Your task to perform on an android device: Search for Mexican restaurants on Maps Image 0: 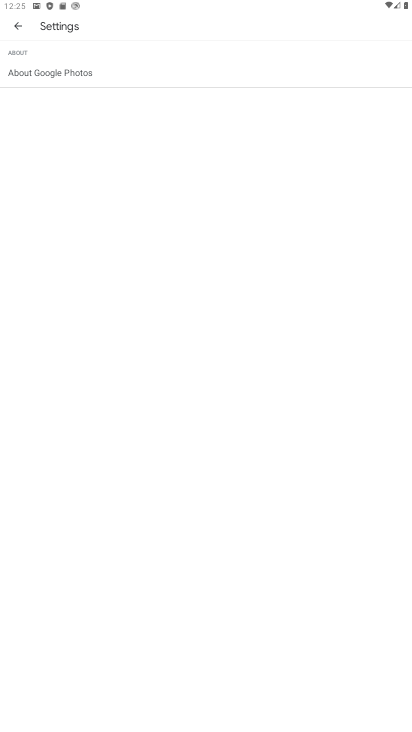
Step 0: press home button
Your task to perform on an android device: Search for Mexican restaurants on Maps Image 1: 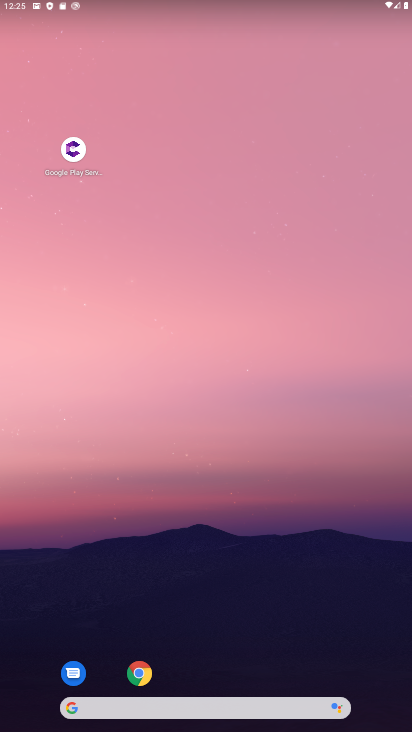
Step 1: drag from (212, 685) to (261, 227)
Your task to perform on an android device: Search for Mexican restaurants on Maps Image 2: 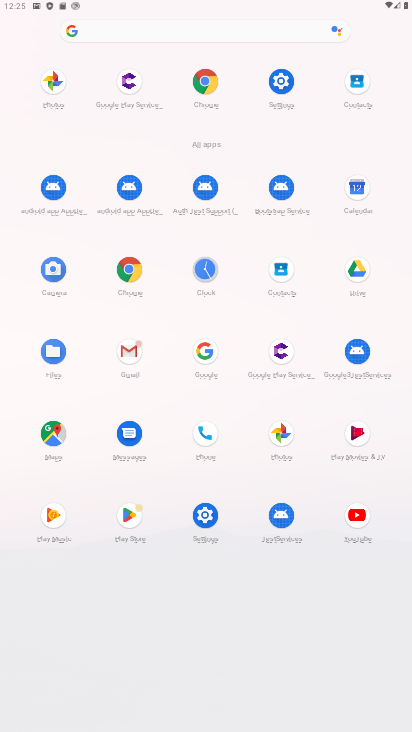
Step 2: click (54, 434)
Your task to perform on an android device: Search for Mexican restaurants on Maps Image 3: 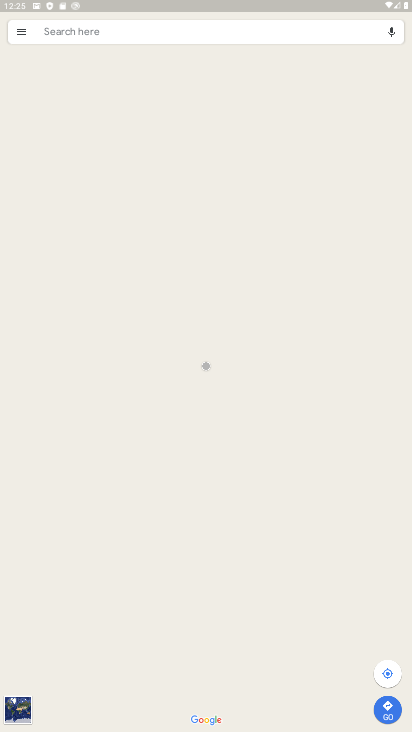
Step 3: click (105, 30)
Your task to perform on an android device: Search for Mexican restaurants on Maps Image 4: 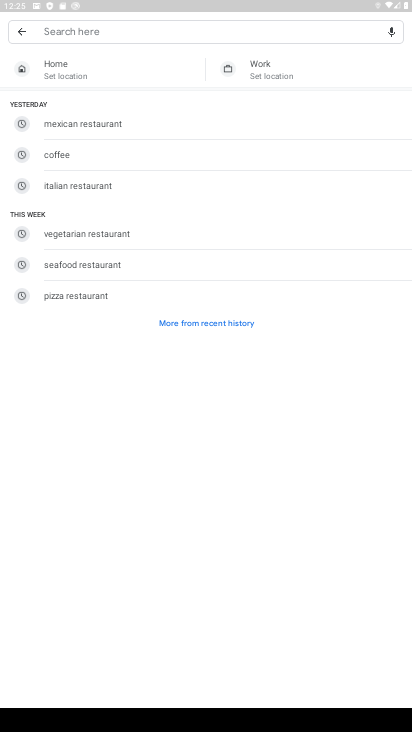
Step 4: type "Mexican restaurants"
Your task to perform on an android device: Search for Mexican restaurants on Maps Image 5: 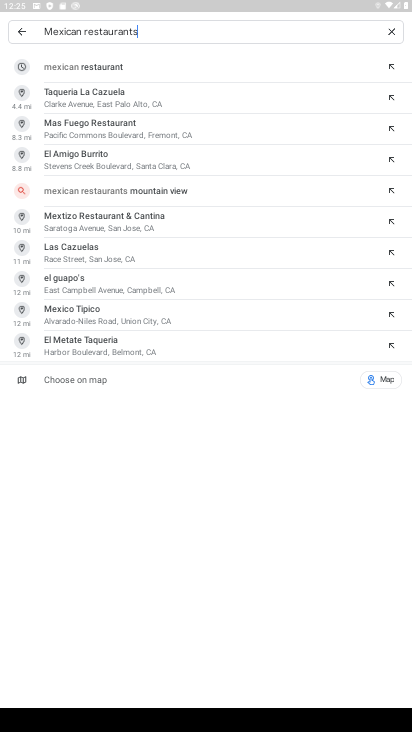
Step 5: click (160, 58)
Your task to perform on an android device: Search for Mexican restaurants on Maps Image 6: 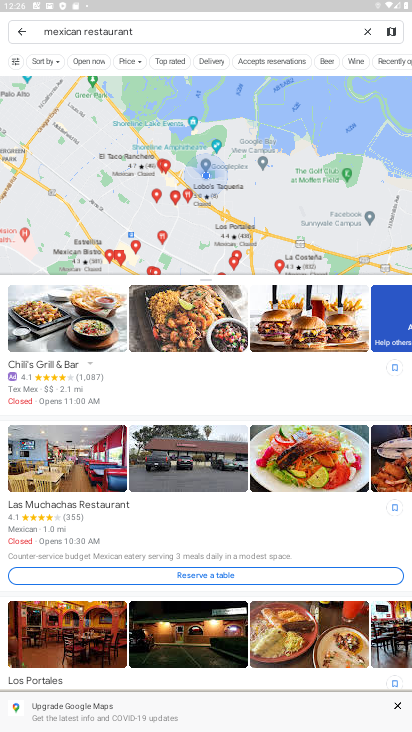
Step 6: task complete